Your task to perform on an android device: turn on showing notifications on the lock screen Image 0: 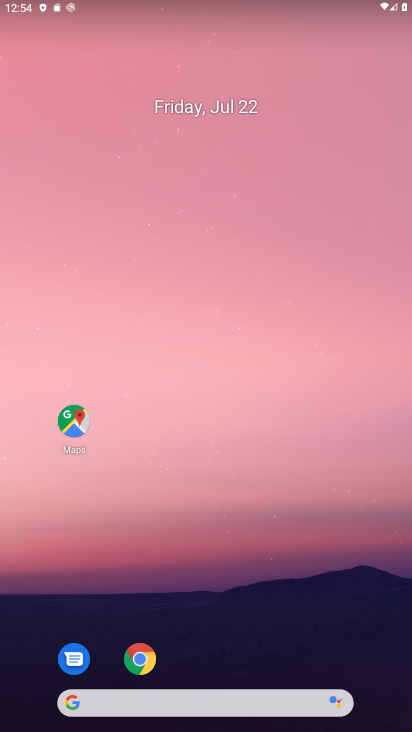
Step 0: drag from (252, 684) to (250, 185)
Your task to perform on an android device: turn on showing notifications on the lock screen Image 1: 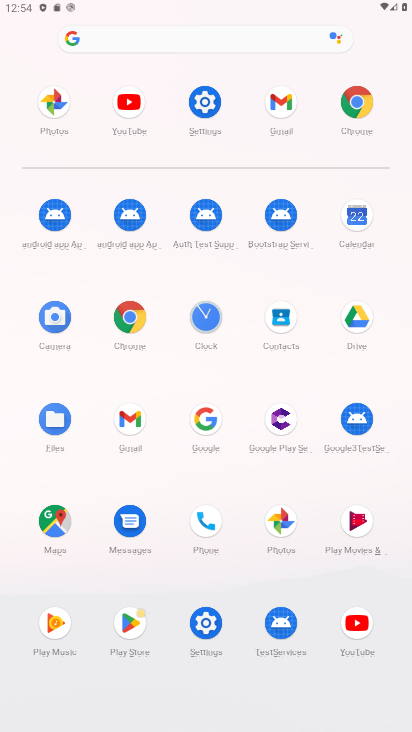
Step 1: click (206, 119)
Your task to perform on an android device: turn on showing notifications on the lock screen Image 2: 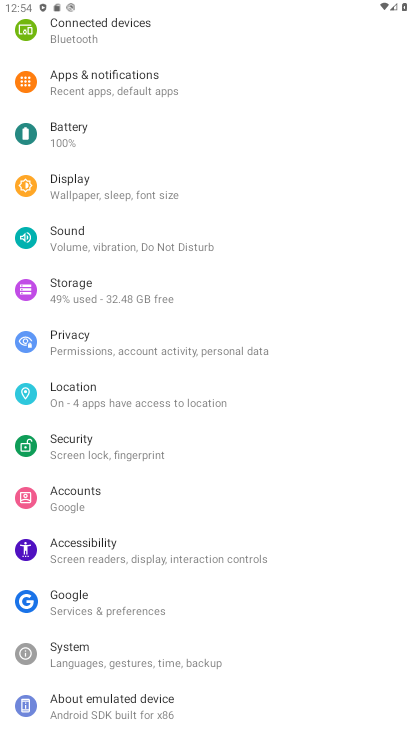
Step 2: task complete